Your task to perform on an android device: Show the shopping cart on walmart. Search for rayovac triple a on walmart, select the first entry, add it to the cart, then select checkout. Image 0: 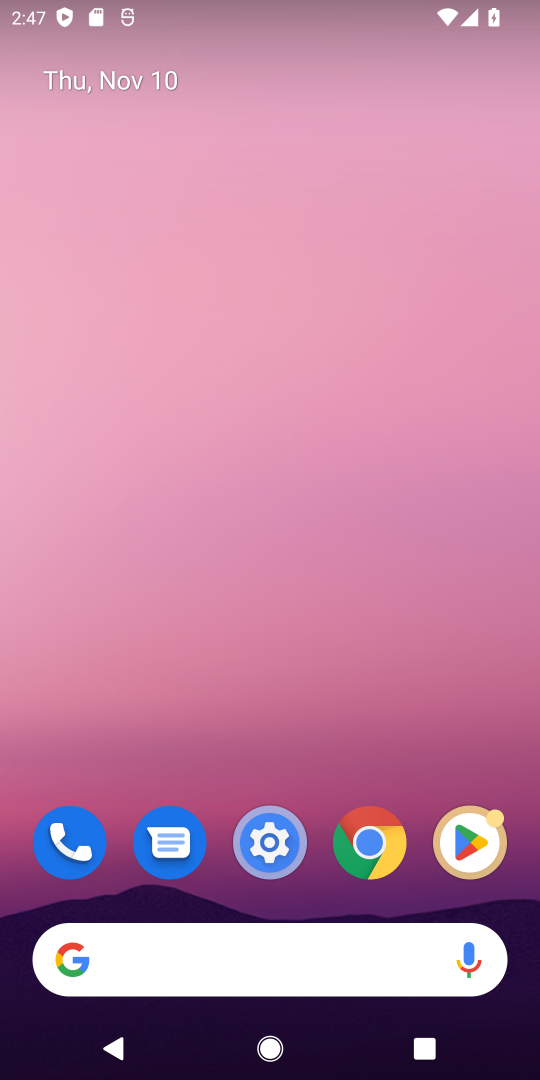
Step 0: press home button
Your task to perform on an android device: Show the shopping cart on walmart. Search for rayovac triple a on walmart, select the first entry, add it to the cart, then select checkout. Image 1: 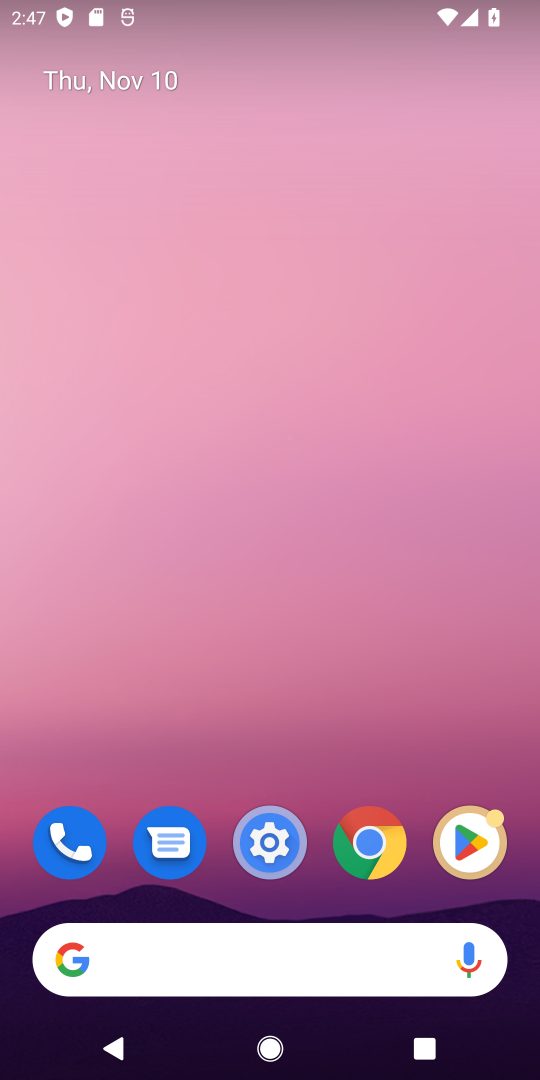
Step 1: click (111, 950)
Your task to perform on an android device: Show the shopping cart on walmart. Search for rayovac triple a on walmart, select the first entry, add it to the cart, then select checkout. Image 2: 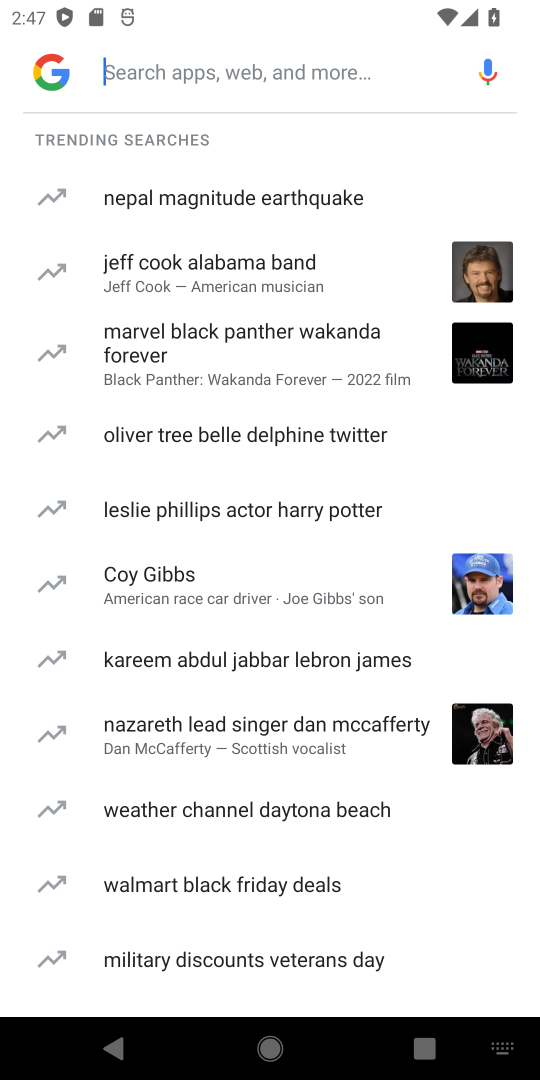
Step 2: press enter
Your task to perform on an android device: Show the shopping cart on walmart. Search for rayovac triple a on walmart, select the first entry, add it to the cart, then select checkout. Image 3: 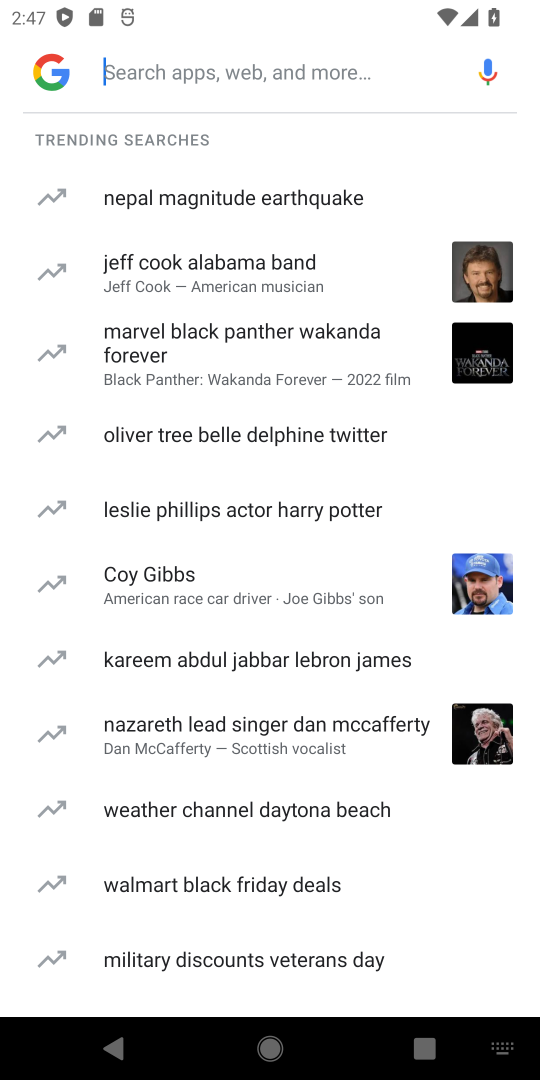
Step 3: type "walmart."
Your task to perform on an android device: Show the shopping cart on walmart. Search for rayovac triple a on walmart, select the first entry, add it to the cart, then select checkout. Image 4: 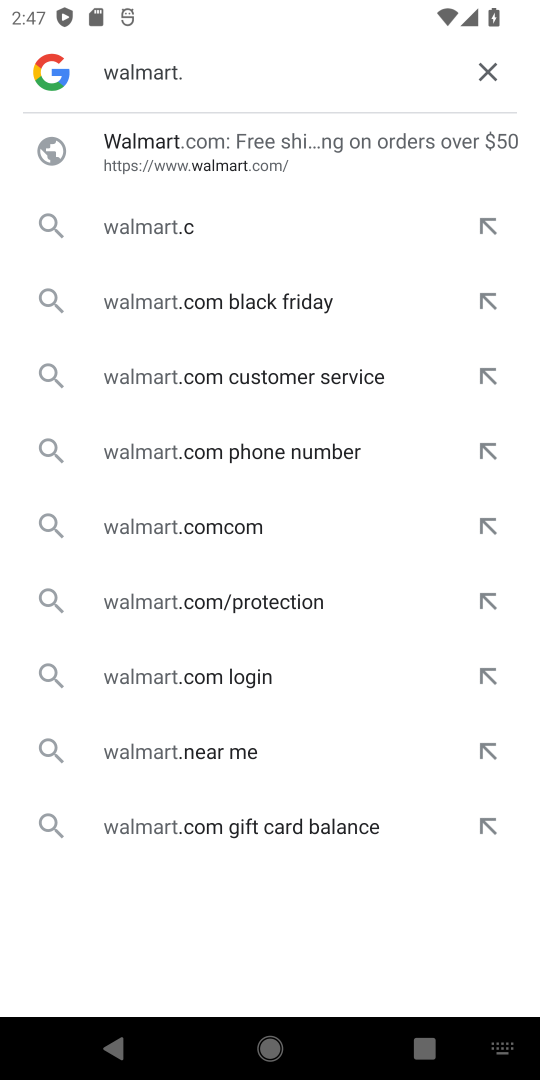
Step 4: press enter
Your task to perform on an android device: Show the shopping cart on walmart. Search for rayovac triple a on walmart, select the first entry, add it to the cart, then select checkout. Image 5: 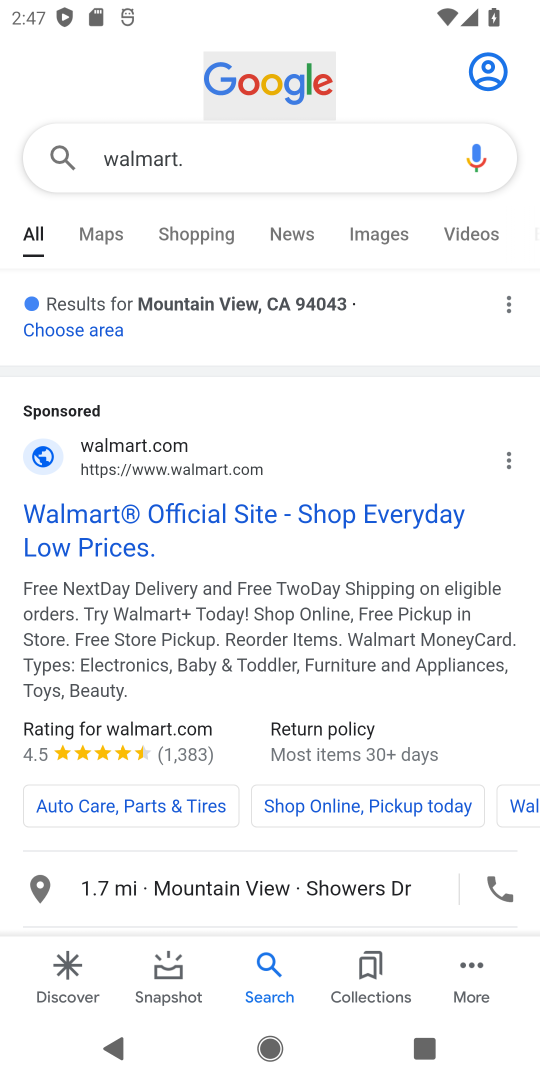
Step 5: click (99, 517)
Your task to perform on an android device: Show the shopping cart on walmart. Search for rayovac triple a on walmart, select the first entry, add it to the cart, then select checkout. Image 6: 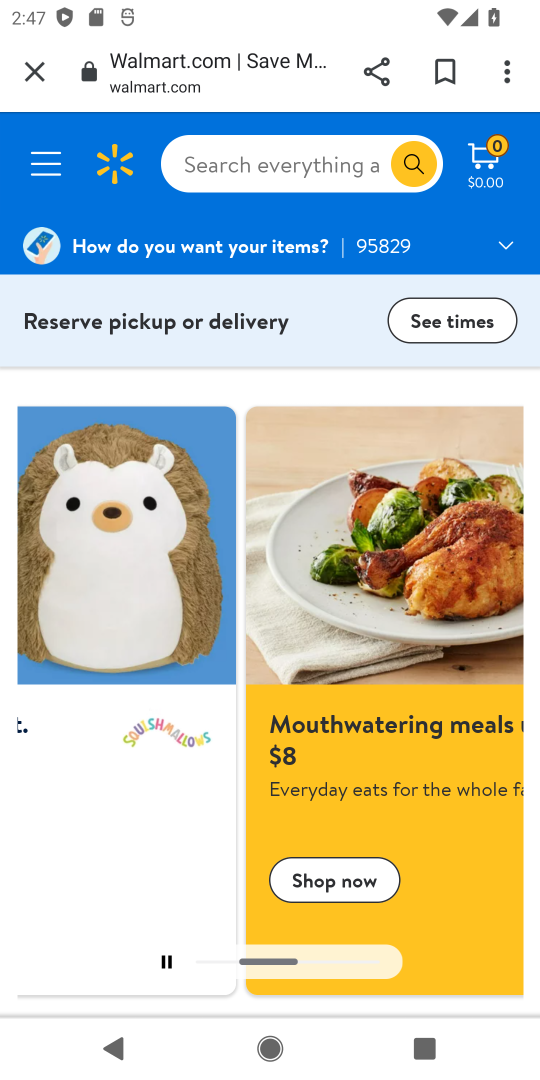
Step 6: click (202, 161)
Your task to perform on an android device: Show the shopping cart on walmart. Search for rayovac triple a on walmart, select the first entry, add it to the cart, then select checkout. Image 7: 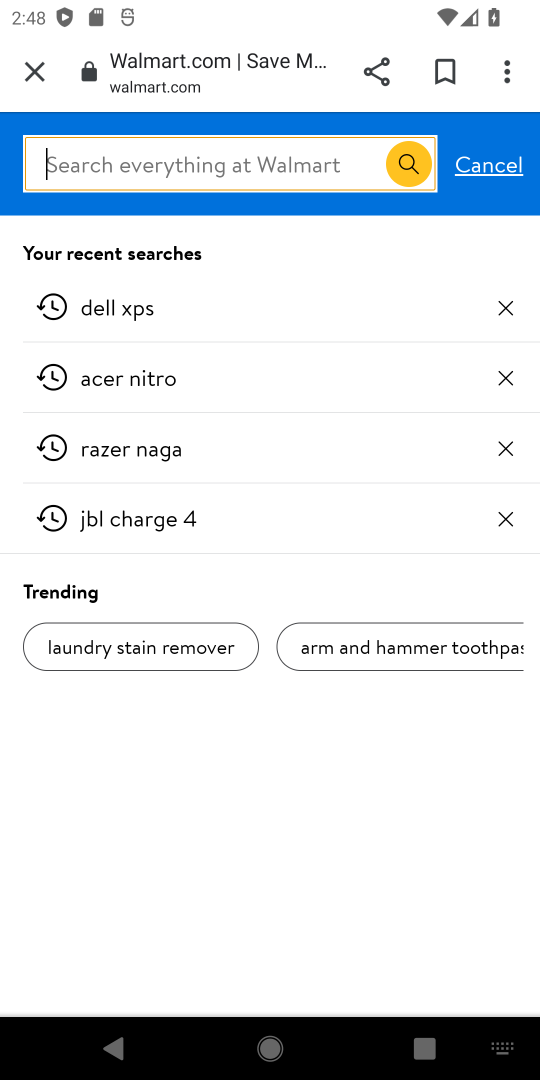
Step 7: type "rayovac triple a "
Your task to perform on an android device: Show the shopping cart on walmart. Search for rayovac triple a on walmart, select the first entry, add it to the cart, then select checkout. Image 8: 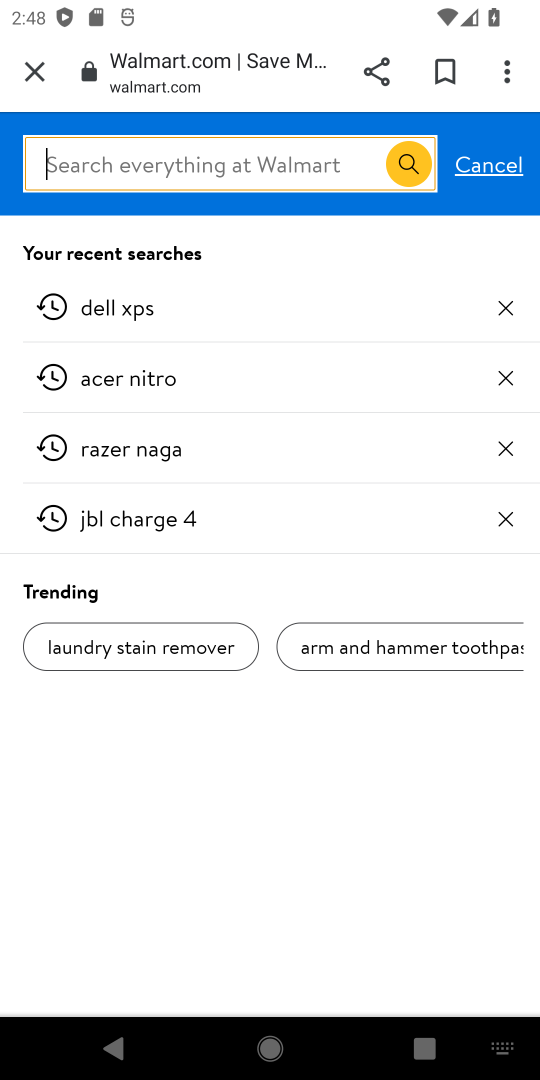
Step 8: press enter
Your task to perform on an android device: Show the shopping cart on walmart. Search for rayovac triple a on walmart, select the first entry, add it to the cart, then select checkout. Image 9: 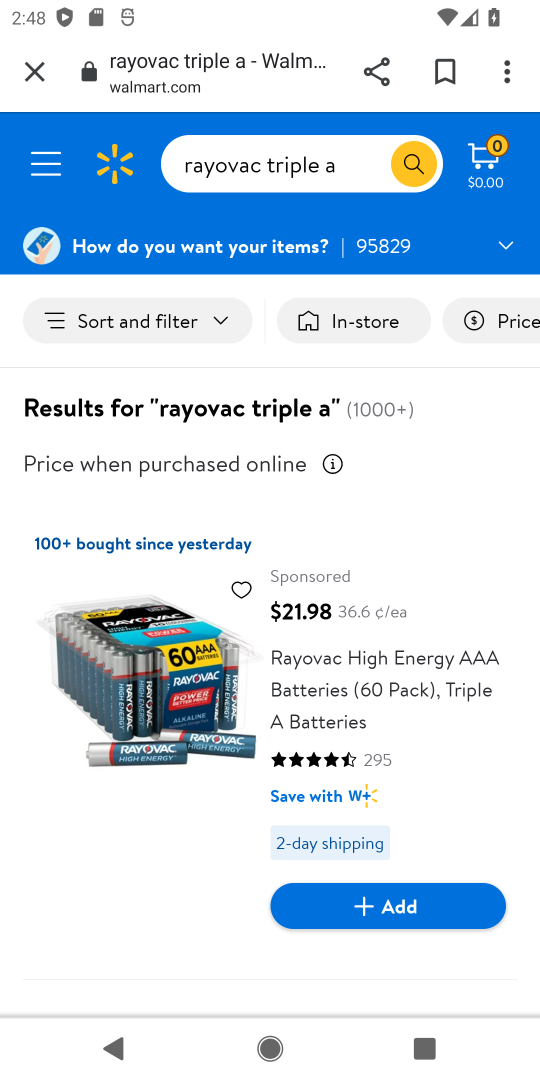
Step 9: drag from (418, 793) to (420, 534)
Your task to perform on an android device: Show the shopping cart on walmart. Search for rayovac triple a on walmart, select the first entry, add it to the cart, then select checkout. Image 10: 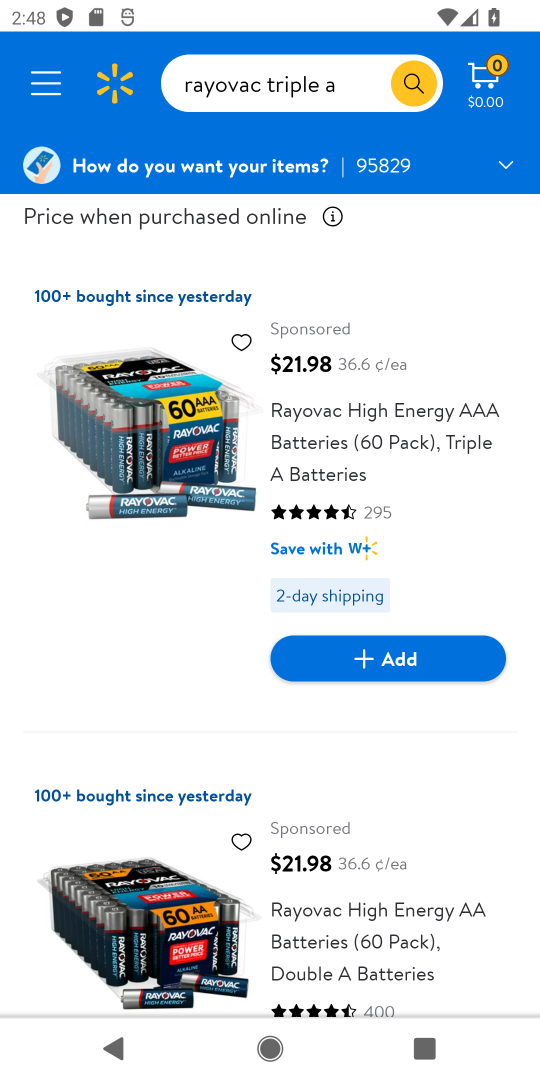
Step 10: click (434, 661)
Your task to perform on an android device: Show the shopping cart on walmart. Search for rayovac triple a on walmart, select the first entry, add it to the cart, then select checkout. Image 11: 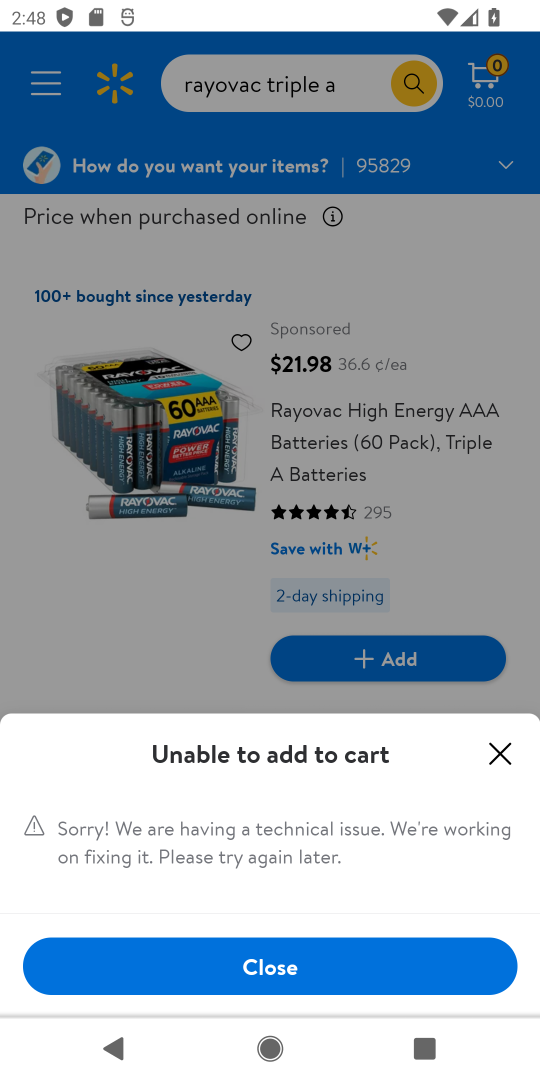
Step 11: task complete